Your task to perform on an android device: Open Google Image 0: 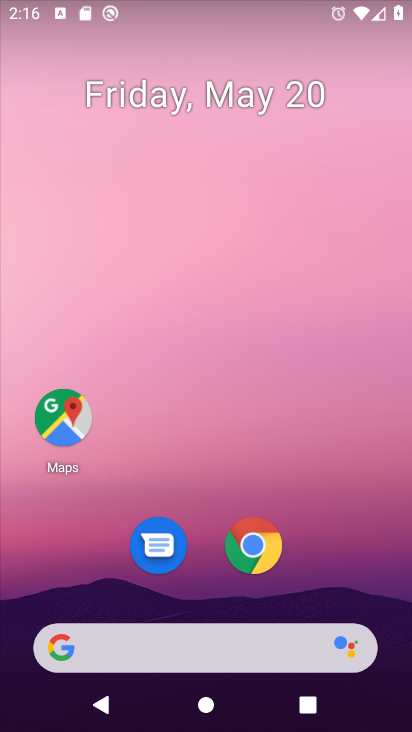
Step 0: drag from (309, 602) to (289, 53)
Your task to perform on an android device: Open Google Image 1: 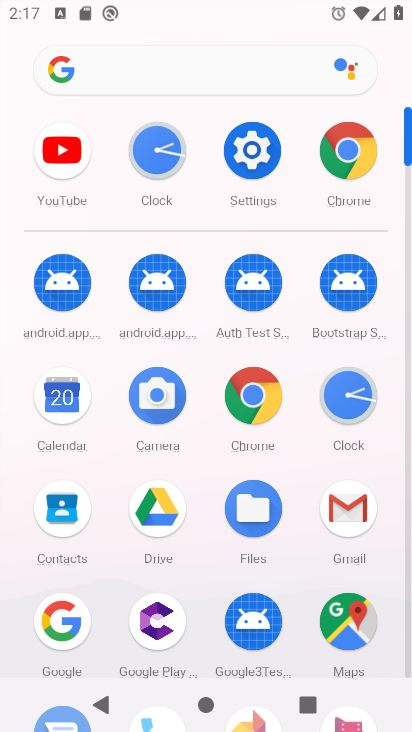
Step 1: click (264, 414)
Your task to perform on an android device: Open Google Image 2: 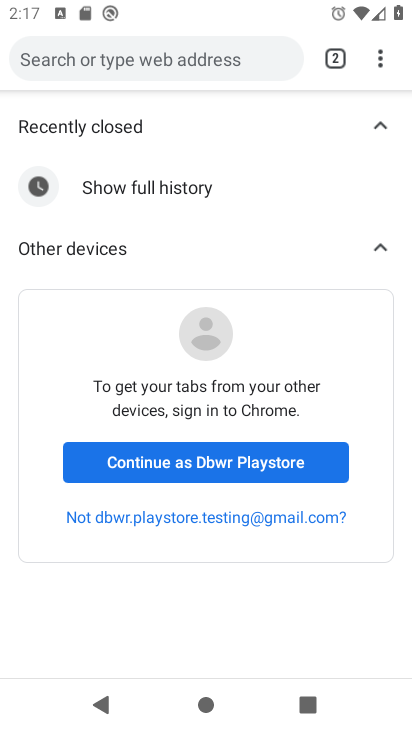
Step 2: task complete